Your task to perform on an android device: turn off translation in the chrome app Image 0: 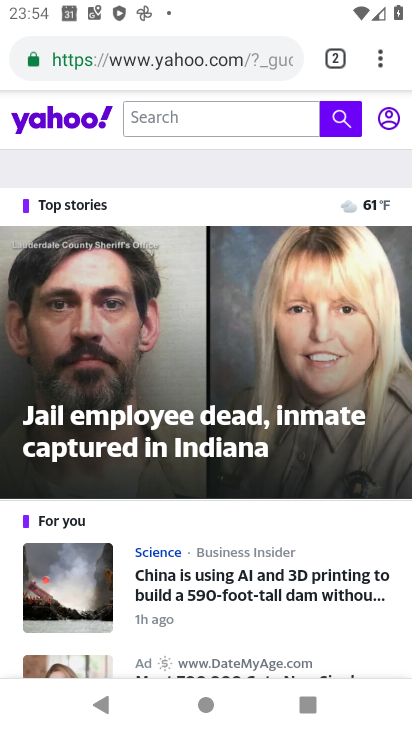
Step 0: click (383, 63)
Your task to perform on an android device: turn off translation in the chrome app Image 1: 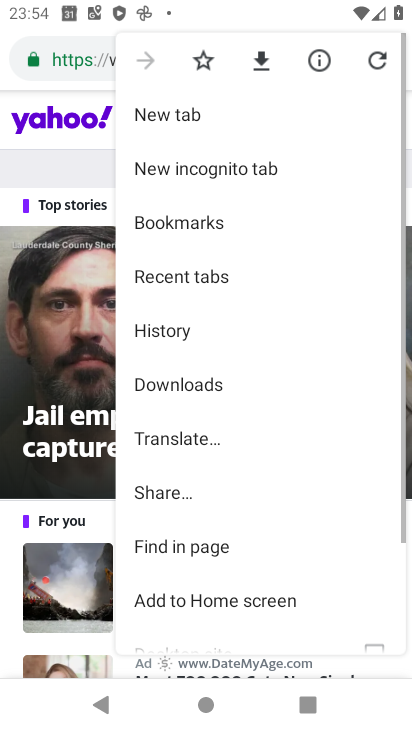
Step 1: click (380, 64)
Your task to perform on an android device: turn off translation in the chrome app Image 2: 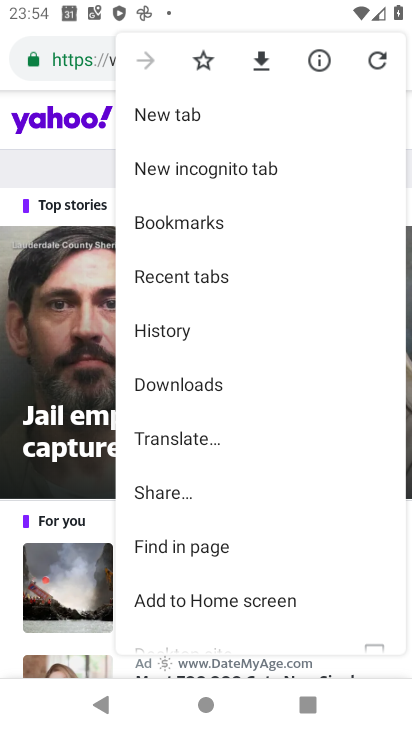
Step 2: drag from (405, 448) to (403, 606)
Your task to perform on an android device: turn off translation in the chrome app Image 3: 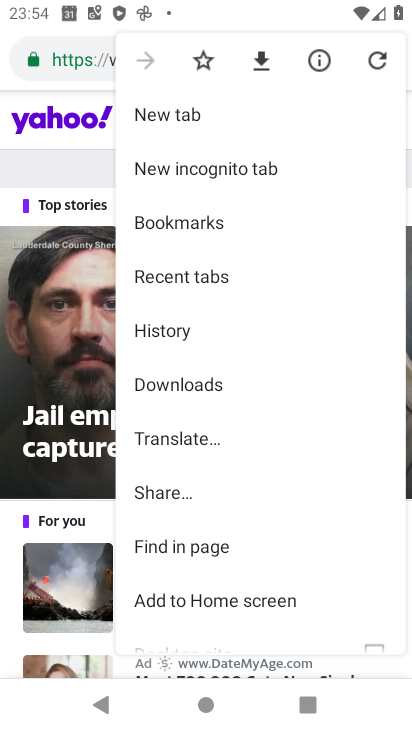
Step 3: drag from (407, 489) to (411, 610)
Your task to perform on an android device: turn off translation in the chrome app Image 4: 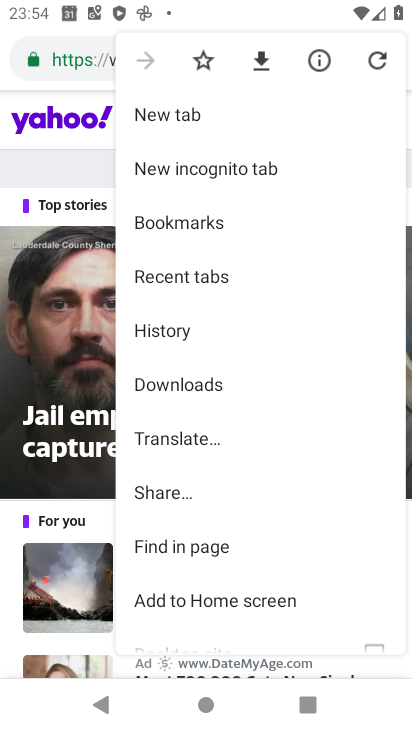
Step 4: drag from (324, 529) to (265, 38)
Your task to perform on an android device: turn off translation in the chrome app Image 5: 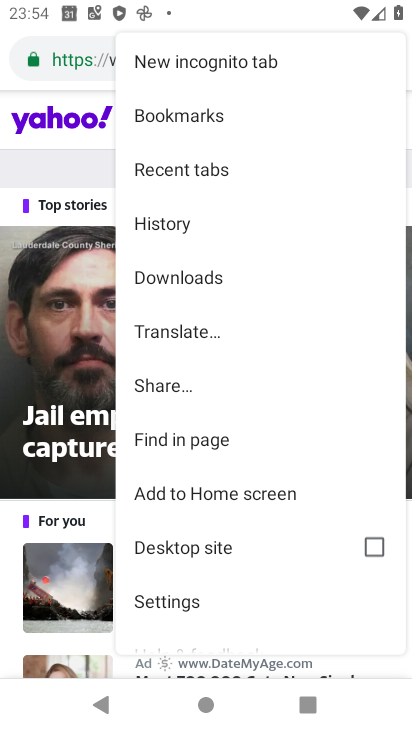
Step 5: click (186, 595)
Your task to perform on an android device: turn off translation in the chrome app Image 6: 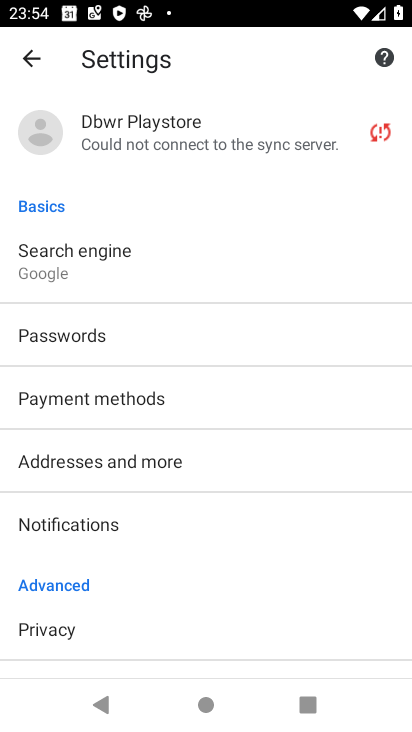
Step 6: drag from (186, 601) to (140, 223)
Your task to perform on an android device: turn off translation in the chrome app Image 7: 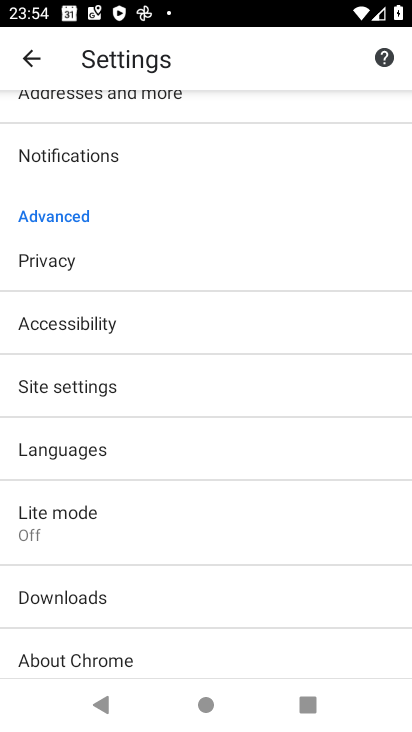
Step 7: click (135, 440)
Your task to perform on an android device: turn off translation in the chrome app Image 8: 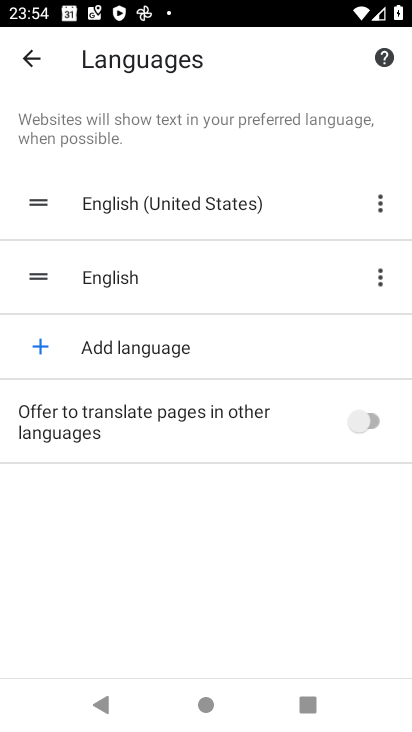
Step 8: task complete